Your task to perform on an android device: check the backup settings in the google photos Image 0: 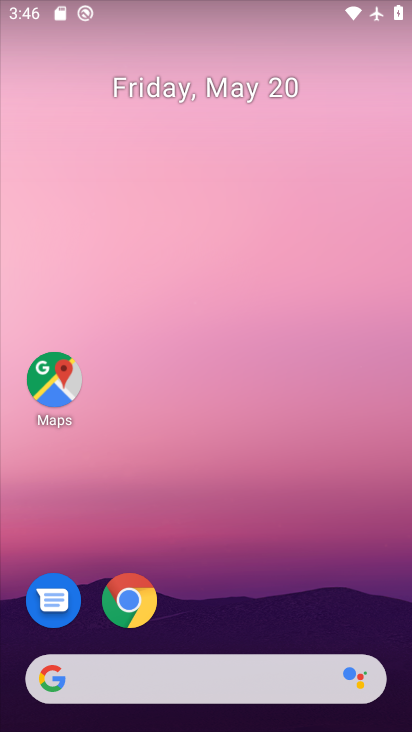
Step 0: drag from (288, 569) to (164, 18)
Your task to perform on an android device: check the backup settings in the google photos Image 1: 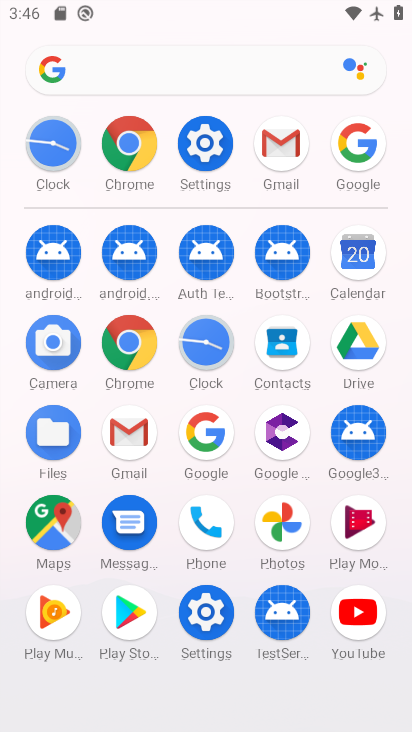
Step 1: click (270, 523)
Your task to perform on an android device: check the backup settings in the google photos Image 2: 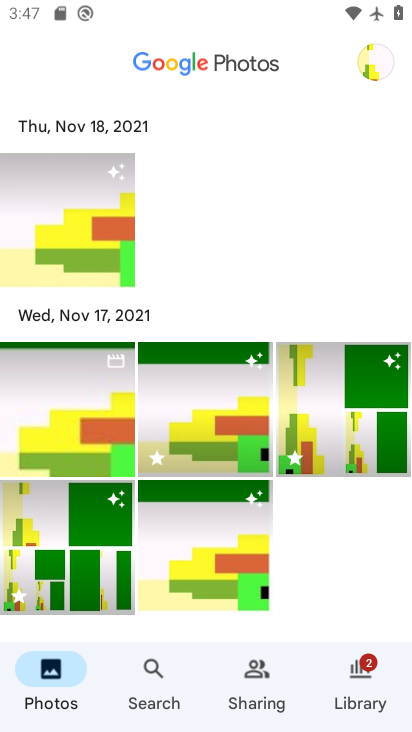
Step 2: click (377, 62)
Your task to perform on an android device: check the backup settings in the google photos Image 3: 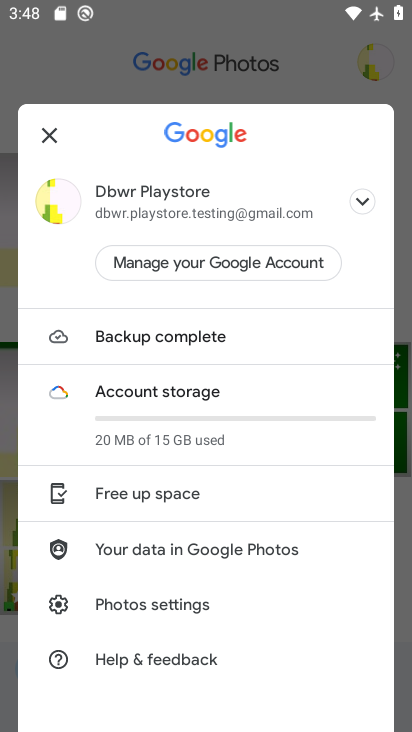
Step 3: click (198, 604)
Your task to perform on an android device: check the backup settings in the google photos Image 4: 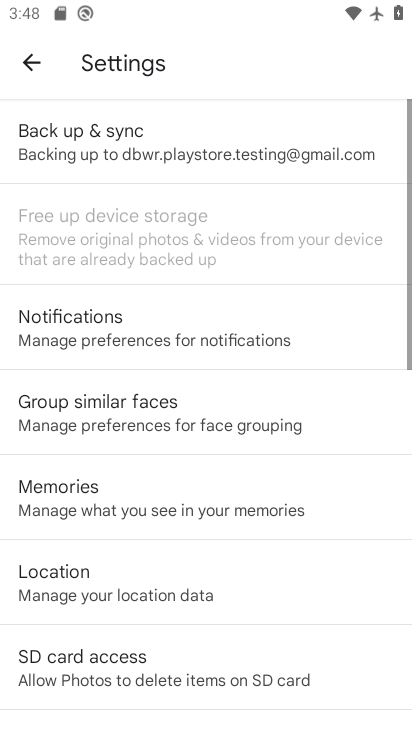
Step 4: click (110, 143)
Your task to perform on an android device: check the backup settings in the google photos Image 5: 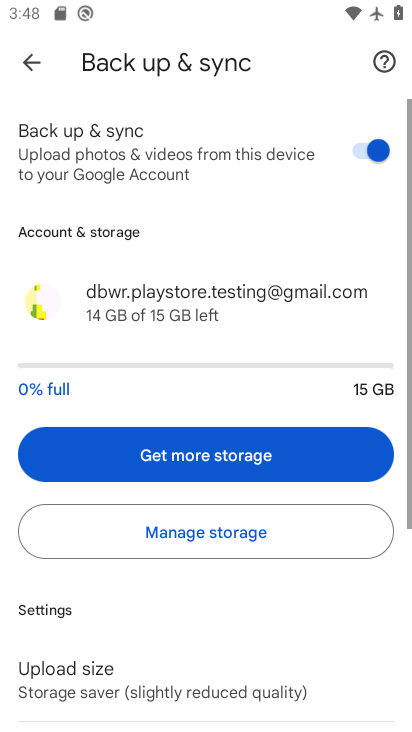
Step 5: task complete